Your task to perform on an android device: Go to notification settings Image 0: 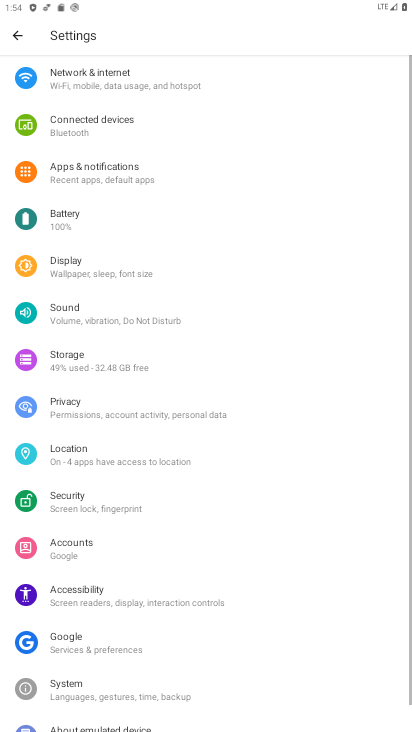
Step 0: click (82, 175)
Your task to perform on an android device: Go to notification settings Image 1: 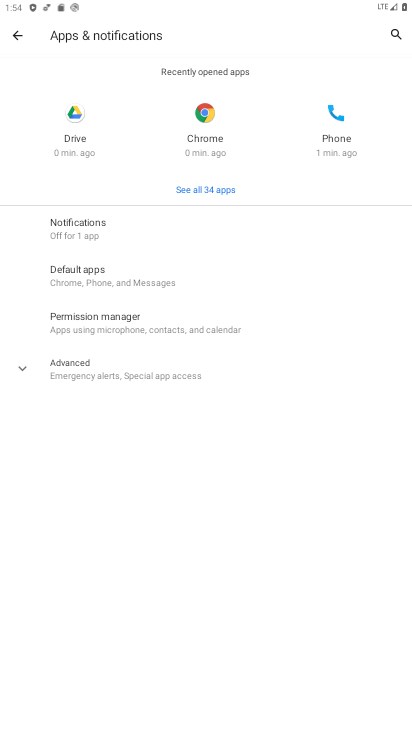
Step 1: click (23, 367)
Your task to perform on an android device: Go to notification settings Image 2: 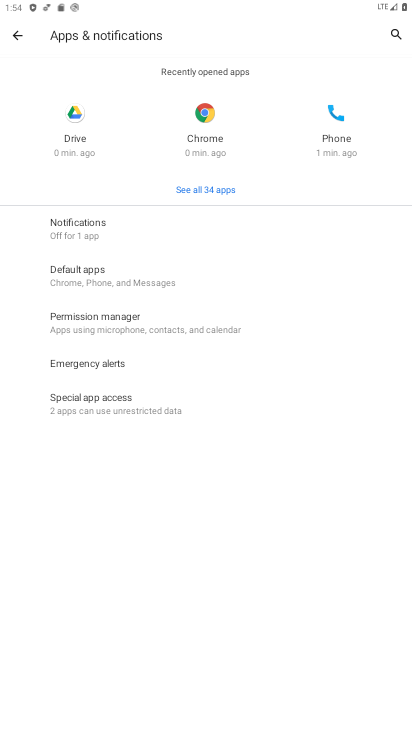
Step 2: click (73, 227)
Your task to perform on an android device: Go to notification settings Image 3: 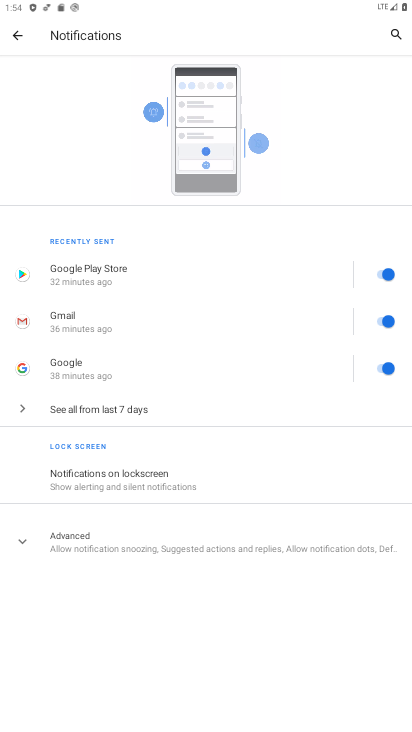
Step 3: task complete